Your task to perform on an android device: uninstall "Viber Messenger" Image 0: 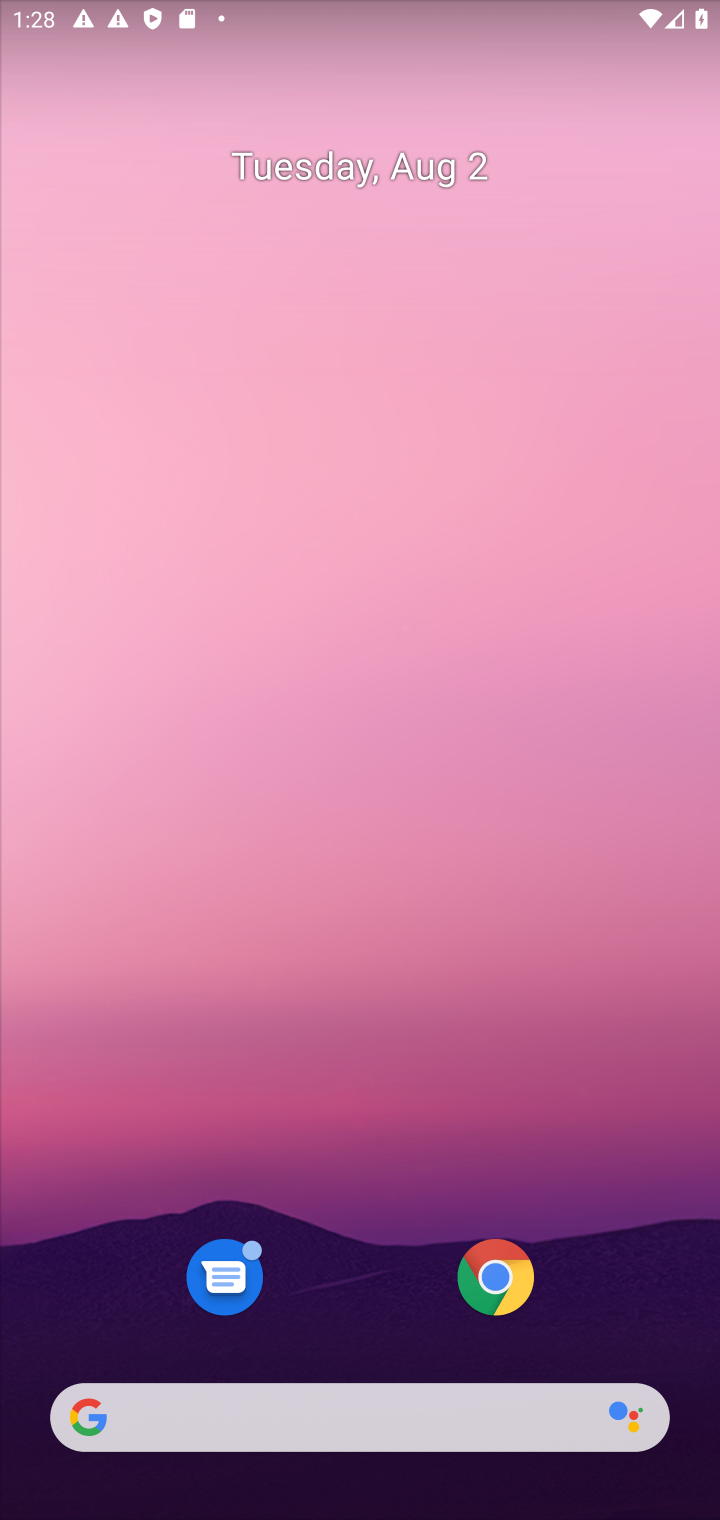
Step 0: drag from (371, 910) to (602, 7)
Your task to perform on an android device: uninstall "Viber Messenger" Image 1: 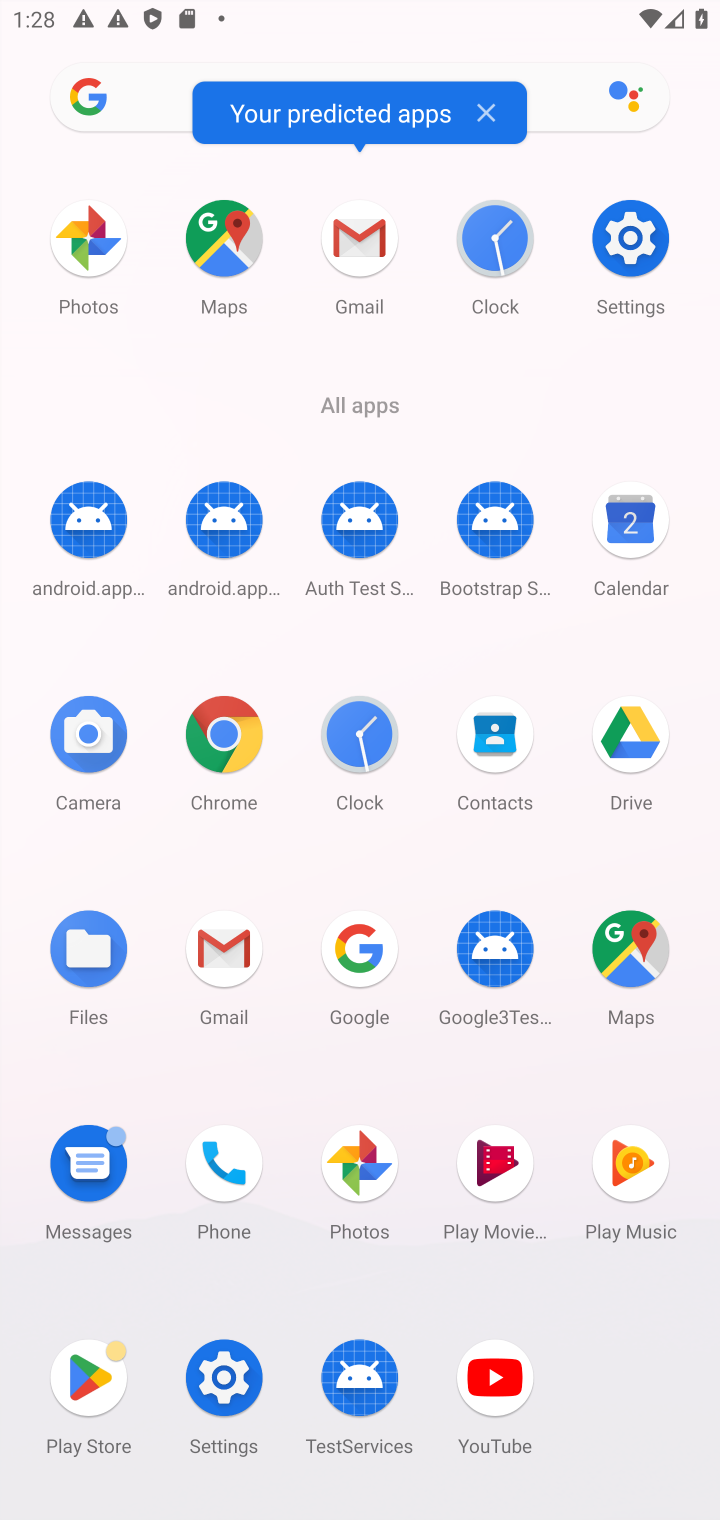
Step 1: click (99, 1386)
Your task to perform on an android device: uninstall "Viber Messenger" Image 2: 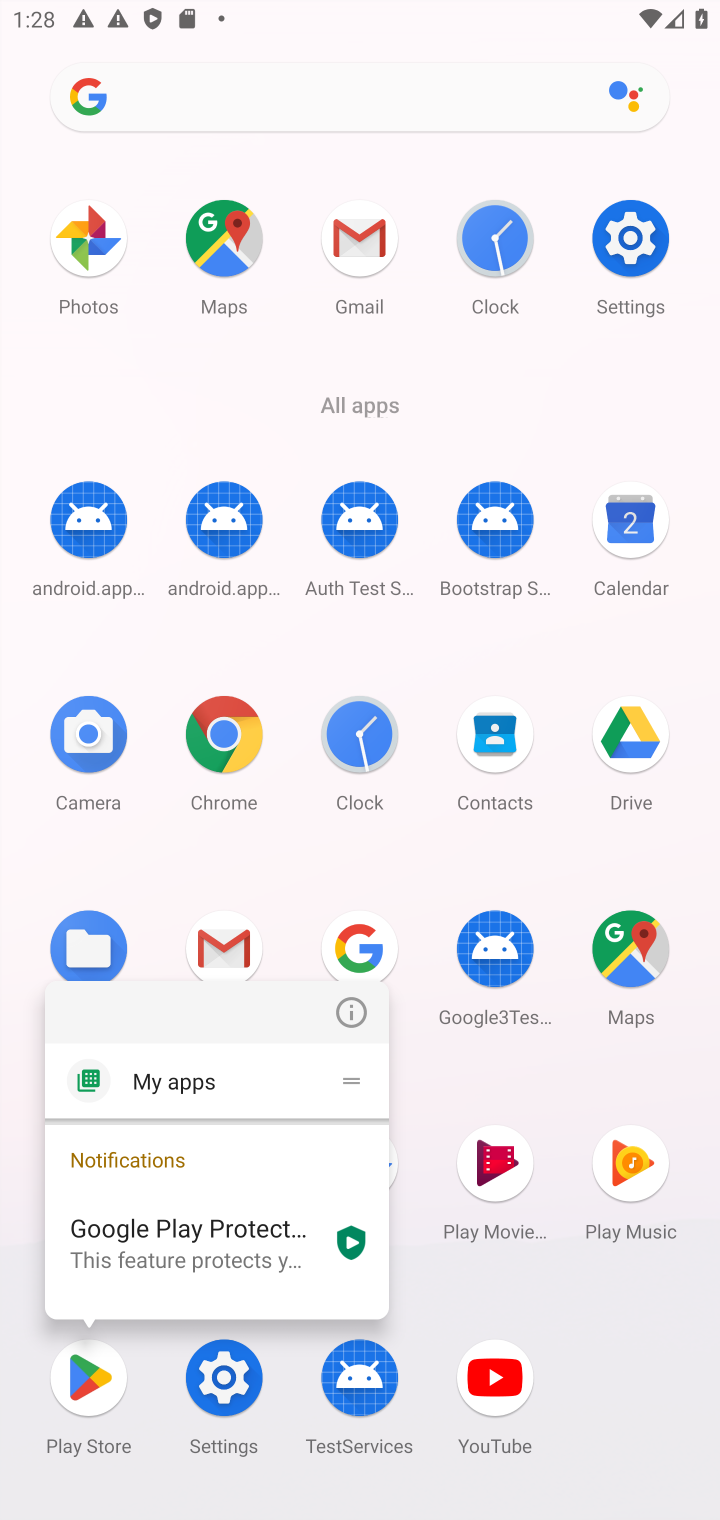
Step 2: click (99, 1386)
Your task to perform on an android device: uninstall "Viber Messenger" Image 3: 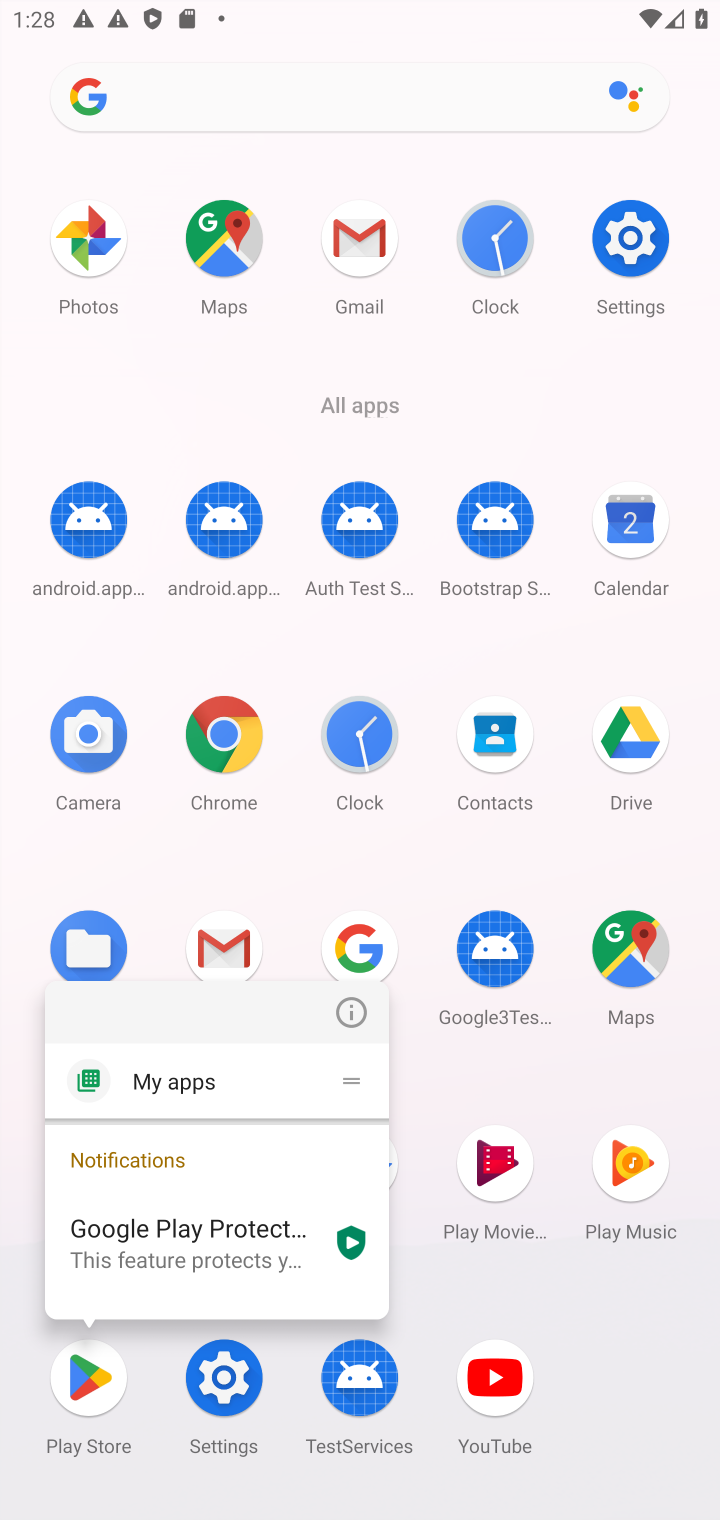
Step 3: click (75, 1371)
Your task to perform on an android device: uninstall "Viber Messenger" Image 4: 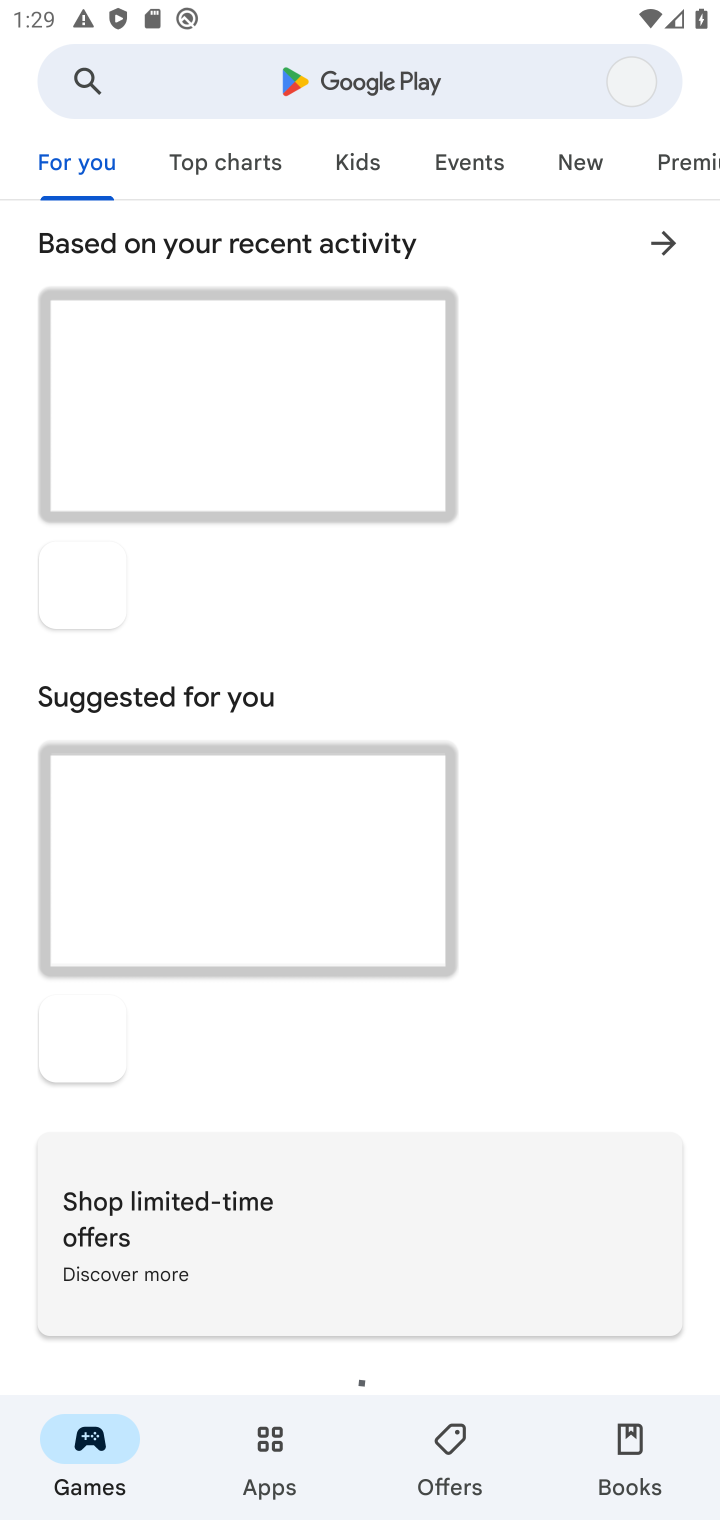
Step 4: click (397, 84)
Your task to perform on an android device: uninstall "Viber Messenger" Image 5: 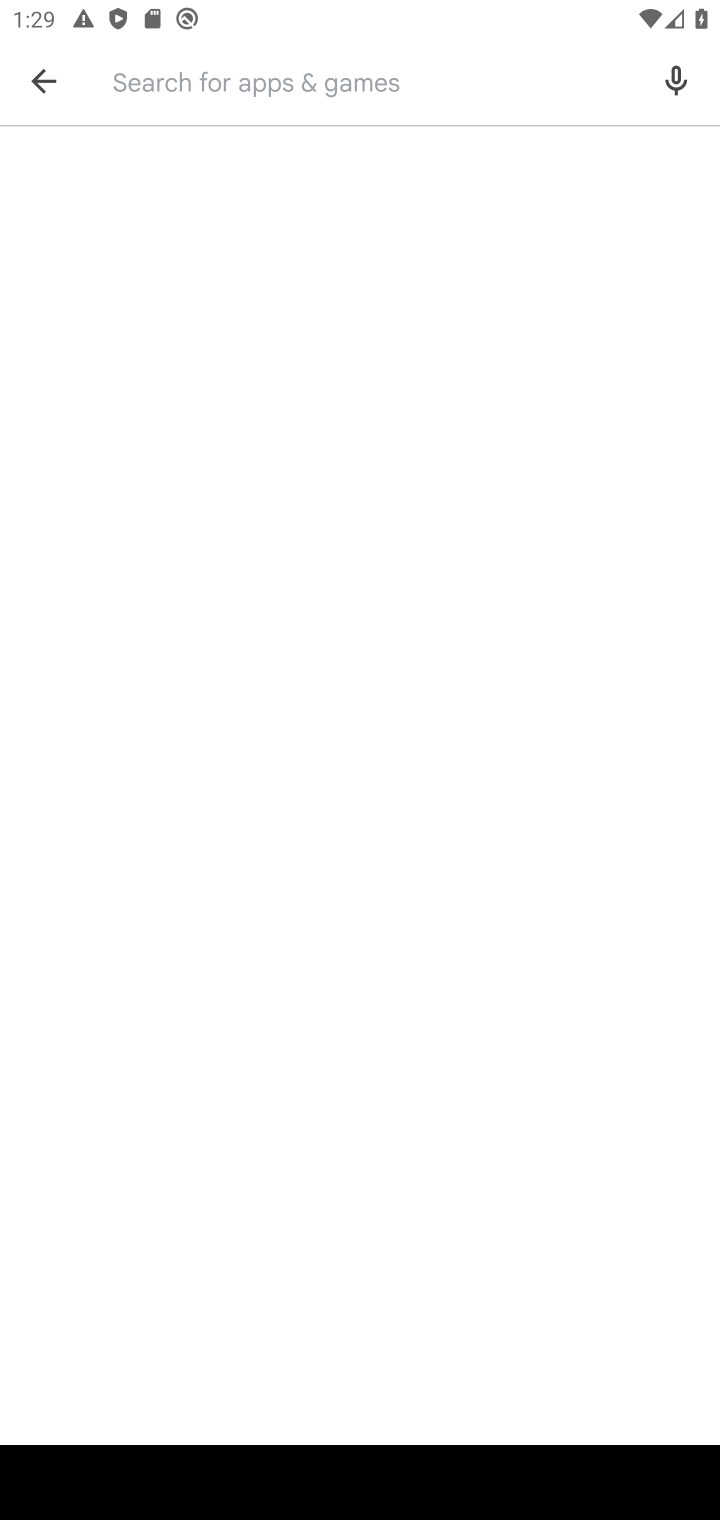
Step 5: click (134, 75)
Your task to perform on an android device: uninstall "Viber Messenger" Image 6: 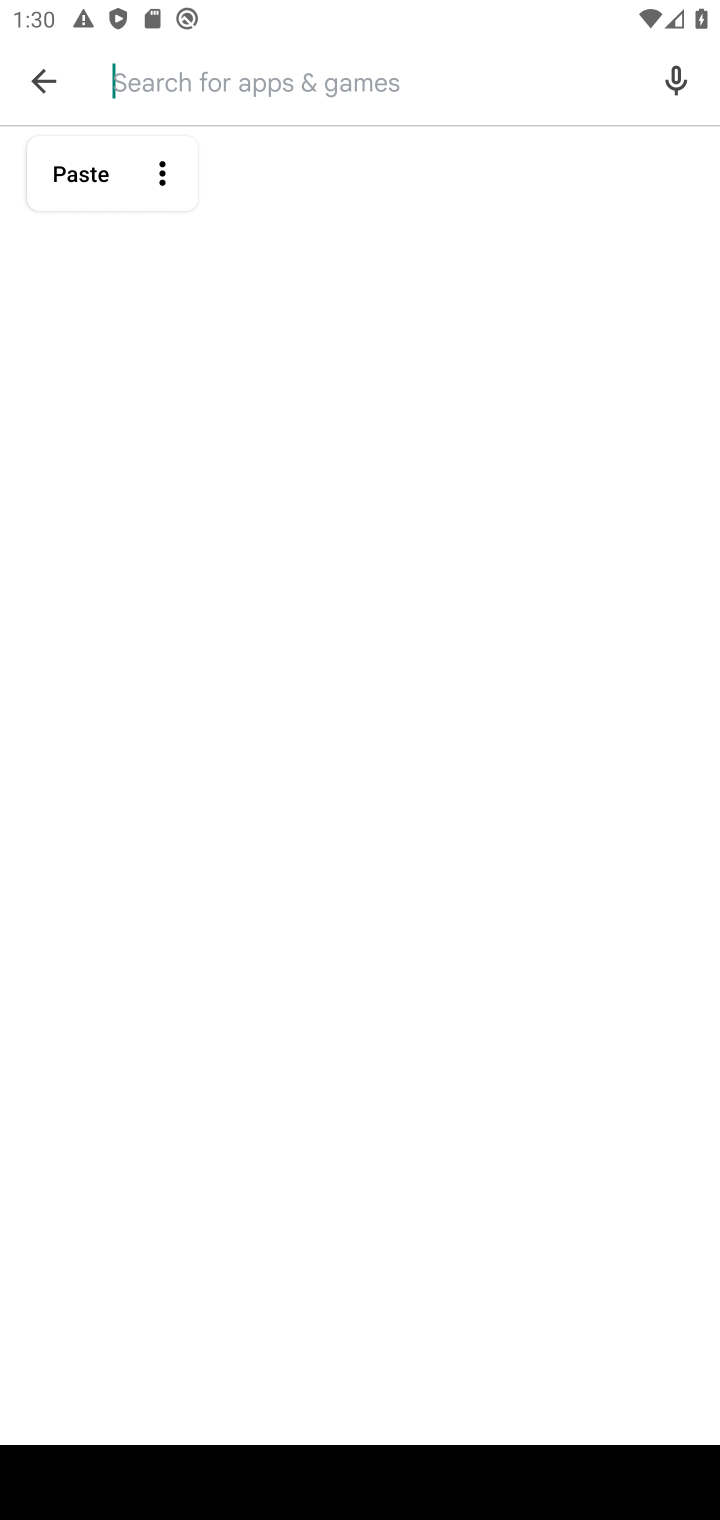
Step 6: type "Viber Messenger"
Your task to perform on an android device: uninstall "Viber Messenger" Image 7: 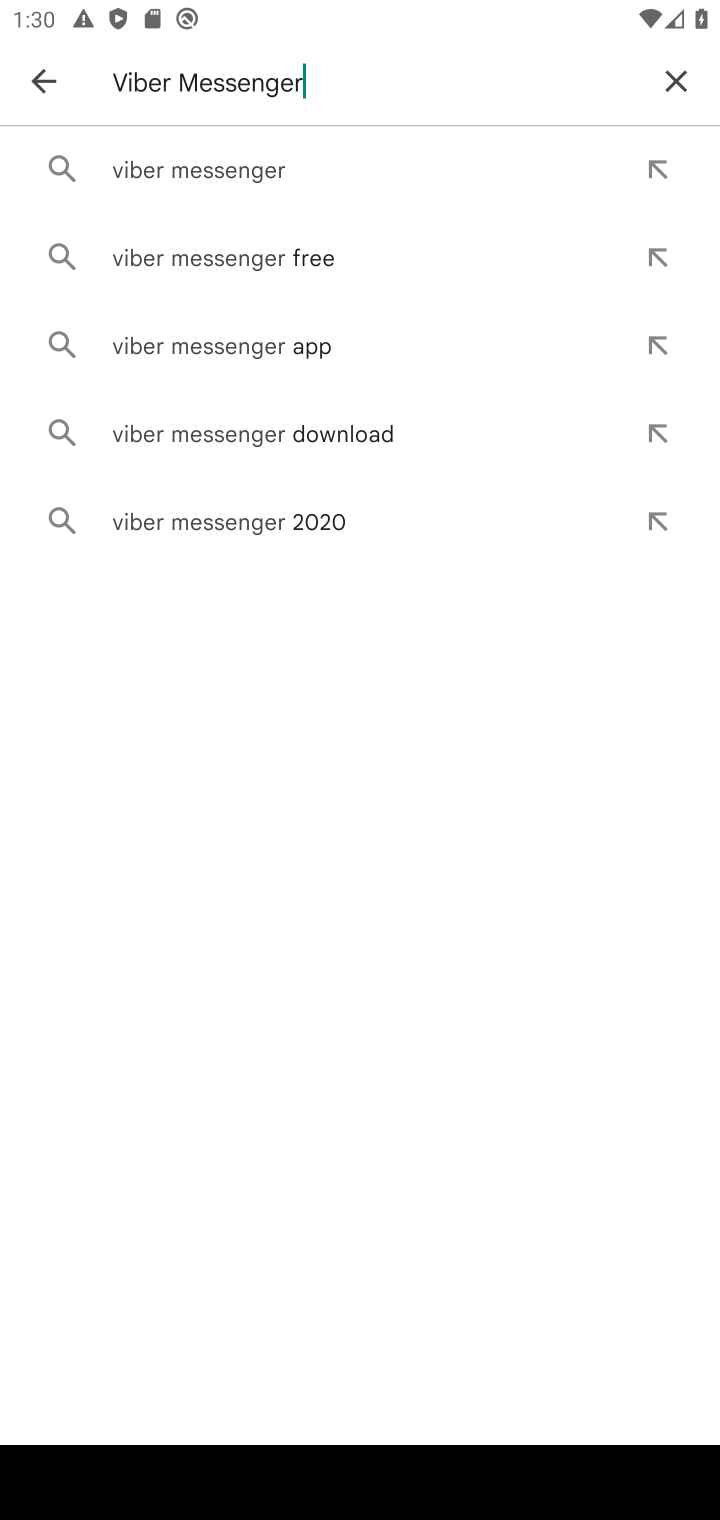
Step 7: click (218, 166)
Your task to perform on an android device: uninstall "Viber Messenger" Image 8: 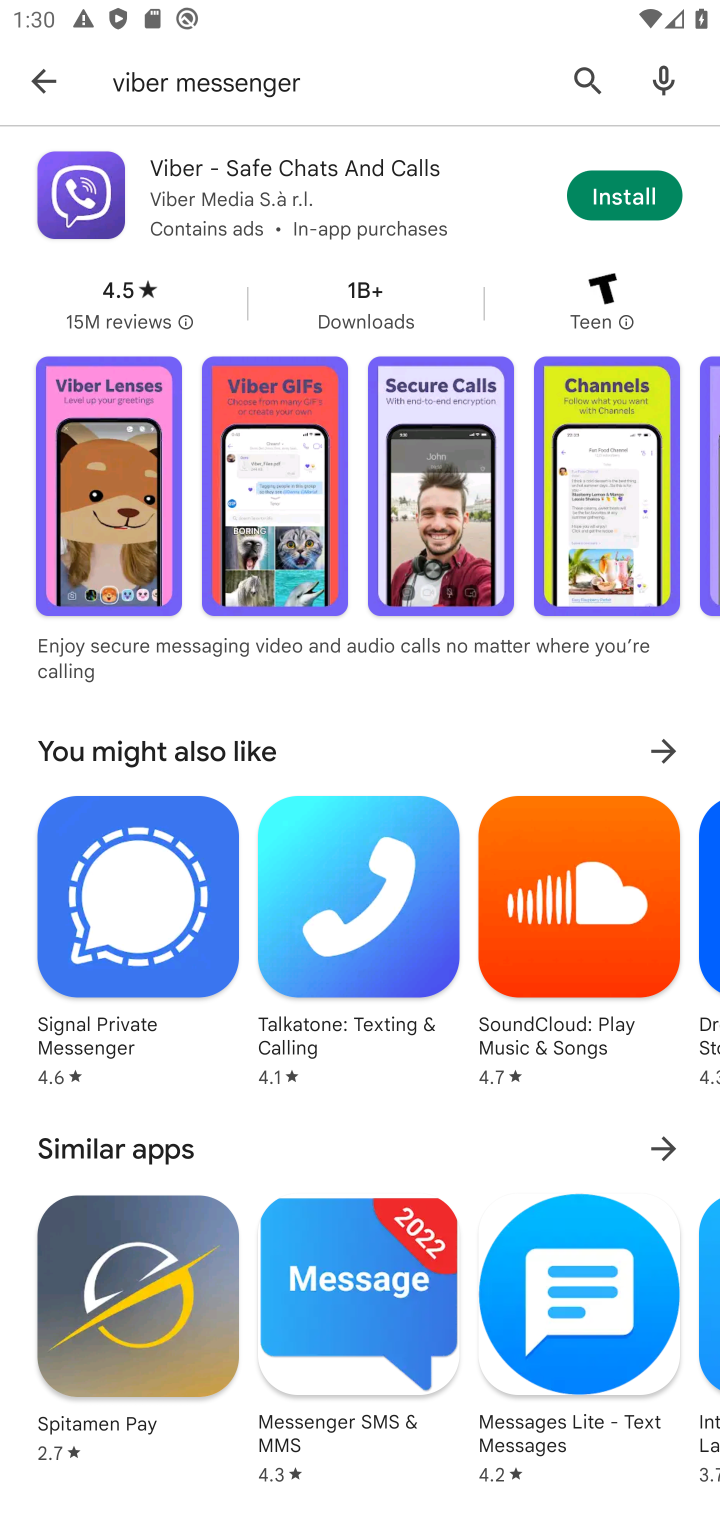
Step 8: click (617, 199)
Your task to perform on an android device: uninstall "Viber Messenger" Image 9: 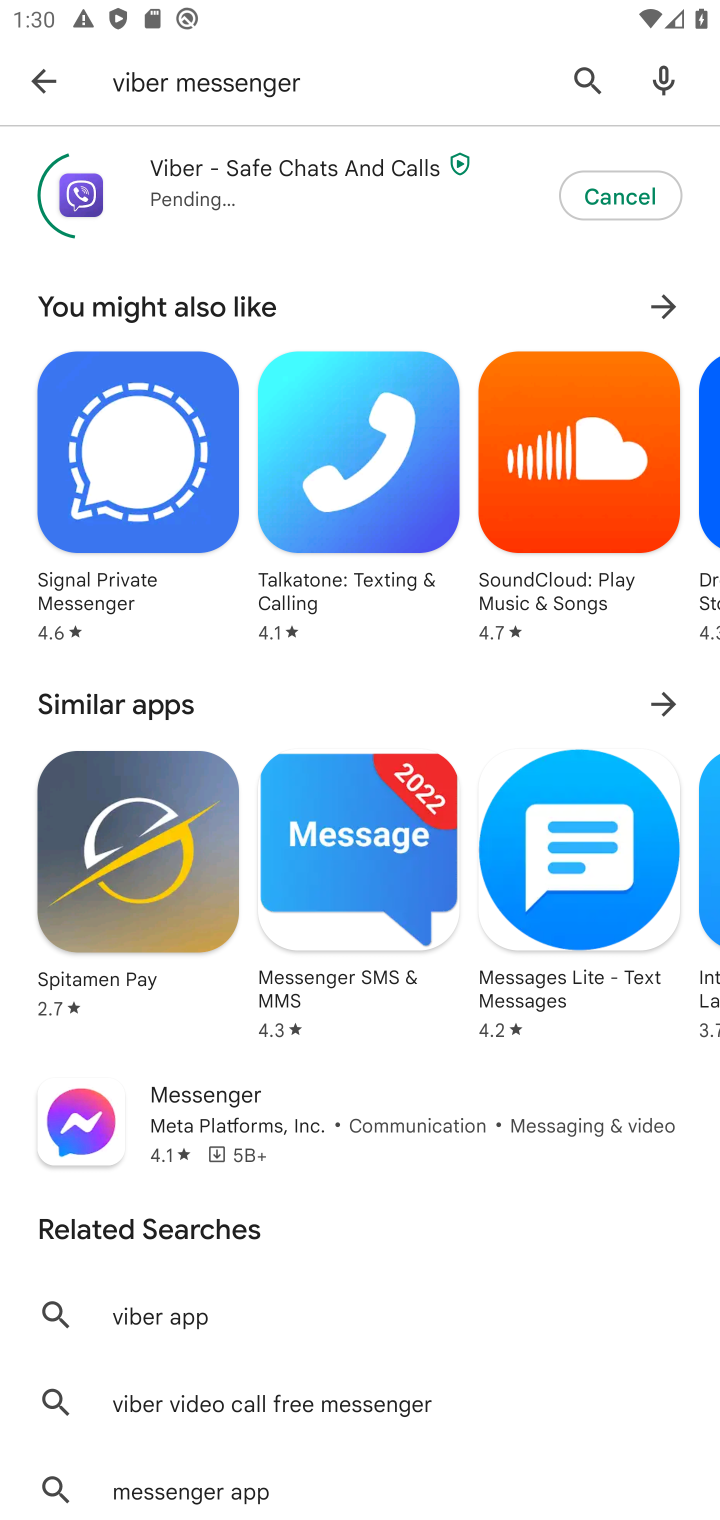
Step 9: click (652, 188)
Your task to perform on an android device: uninstall "Viber Messenger" Image 10: 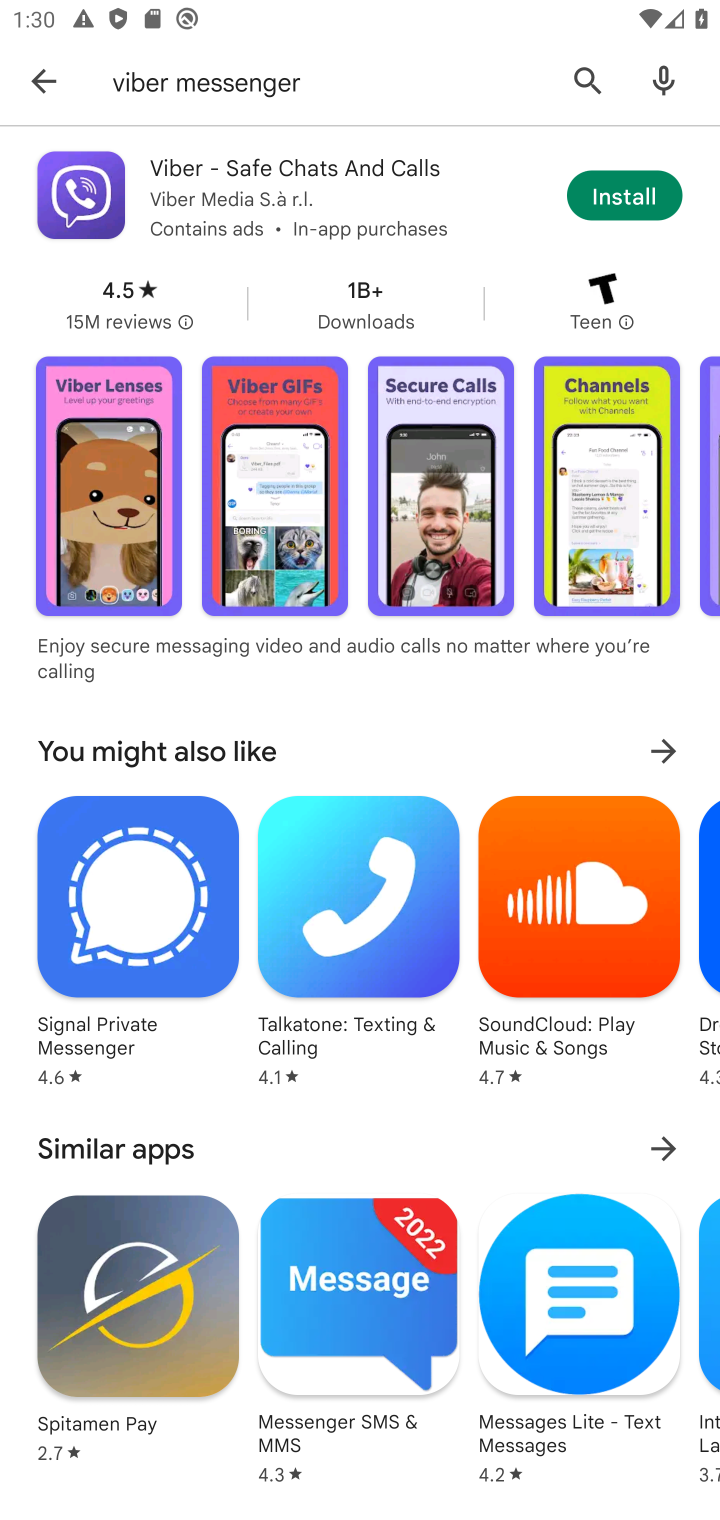
Step 10: task complete